Your task to perform on an android device: Turn on the flashlight Image 0: 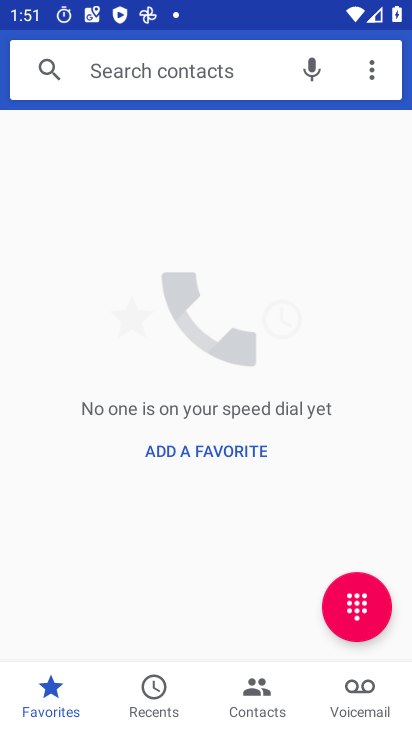
Step 0: press home button
Your task to perform on an android device: Turn on the flashlight Image 1: 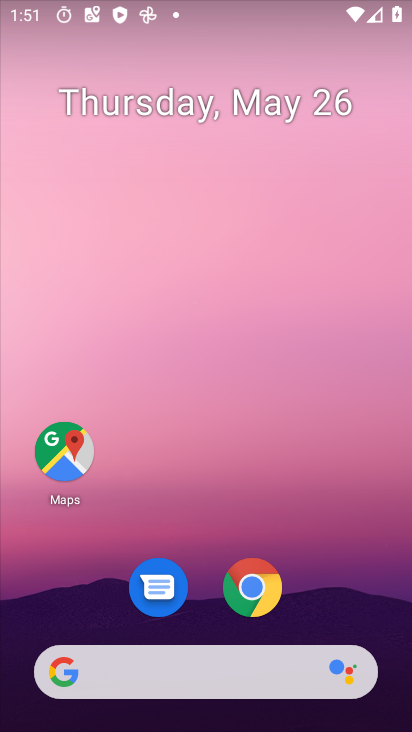
Step 1: drag from (283, 10) to (279, 317)
Your task to perform on an android device: Turn on the flashlight Image 2: 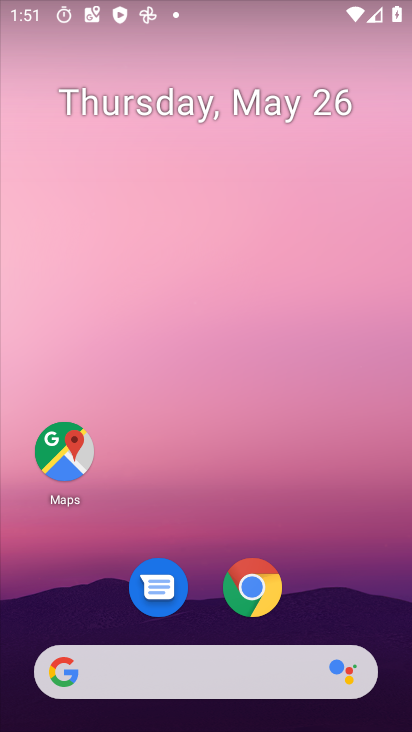
Step 2: drag from (260, 74) to (274, 257)
Your task to perform on an android device: Turn on the flashlight Image 3: 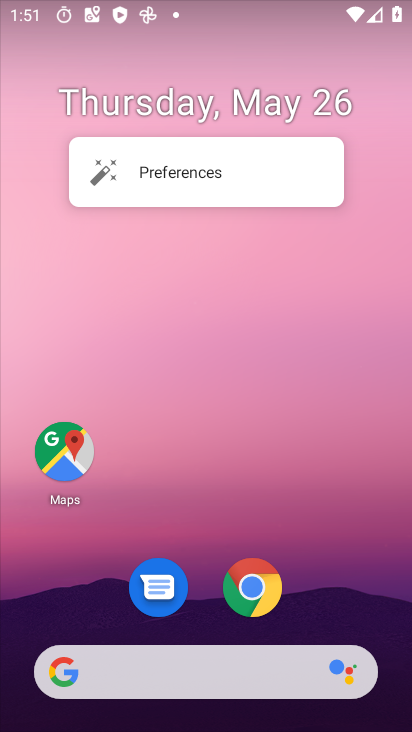
Step 3: click (293, 242)
Your task to perform on an android device: Turn on the flashlight Image 4: 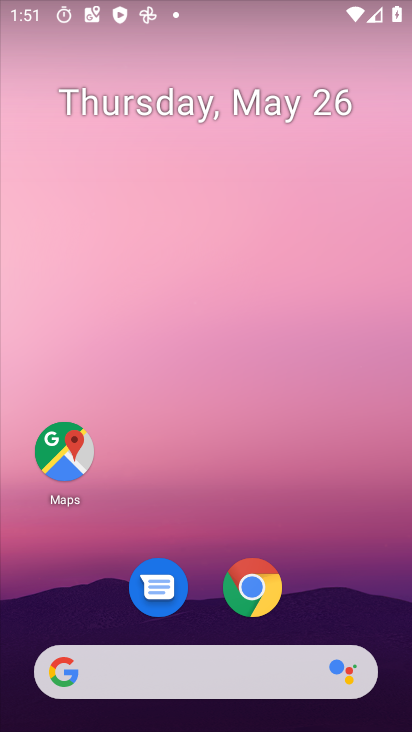
Step 4: task complete